Your task to perform on an android device: Go to ESPN.com Image 0: 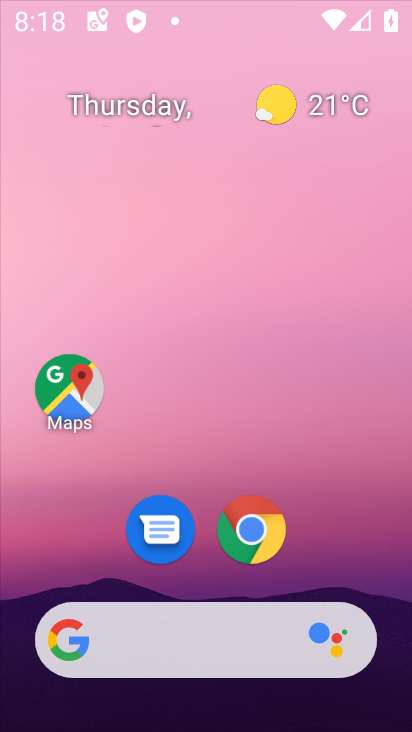
Step 0: drag from (261, 14) to (220, 19)
Your task to perform on an android device: Go to ESPN.com Image 1: 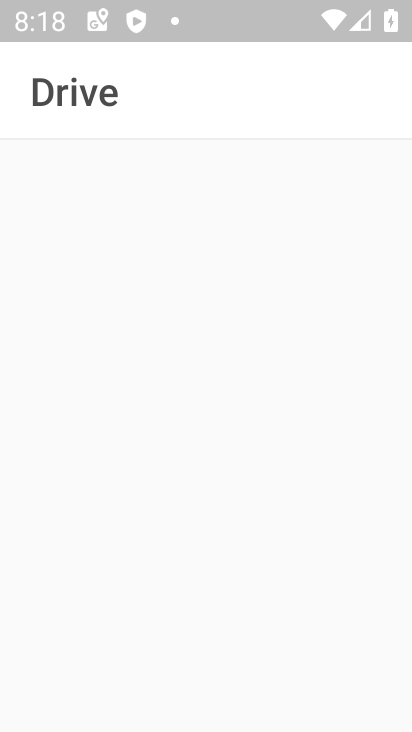
Step 1: press home button
Your task to perform on an android device: Go to ESPN.com Image 2: 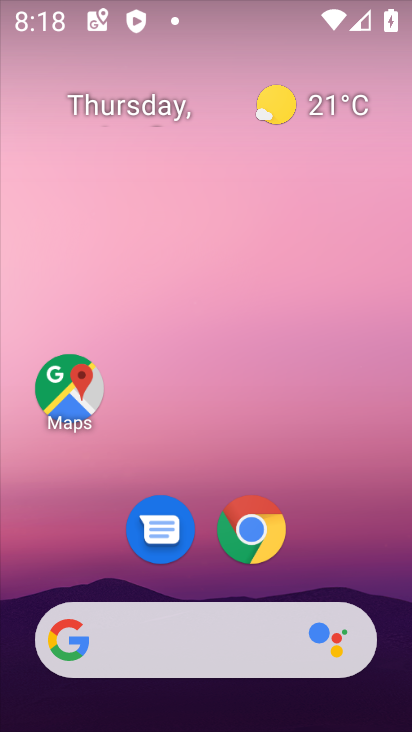
Step 2: click (172, 643)
Your task to perform on an android device: Go to ESPN.com Image 3: 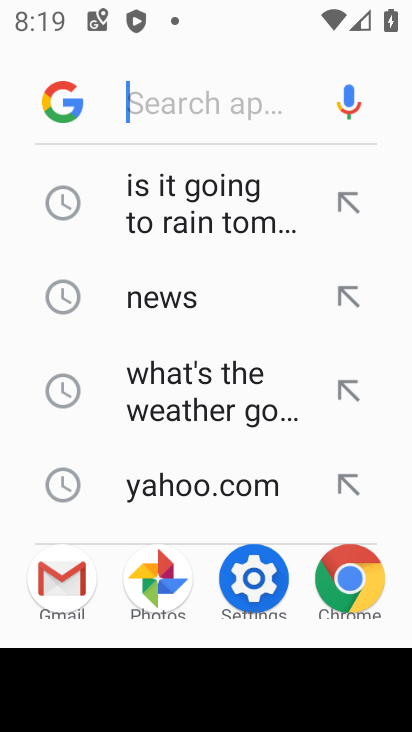
Step 3: type "espn.com"
Your task to perform on an android device: Go to ESPN.com Image 4: 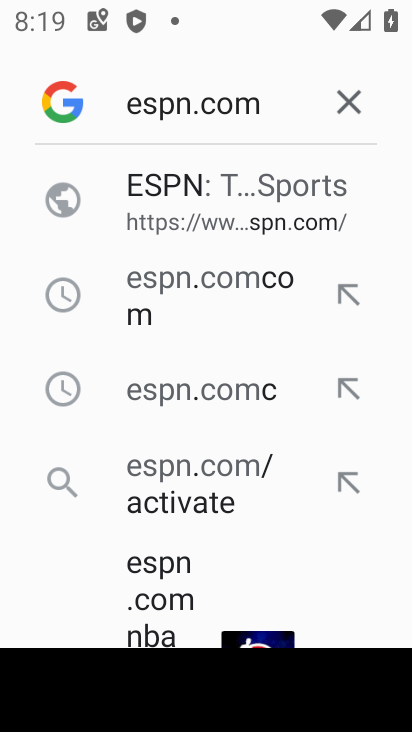
Step 4: click (246, 202)
Your task to perform on an android device: Go to ESPN.com Image 5: 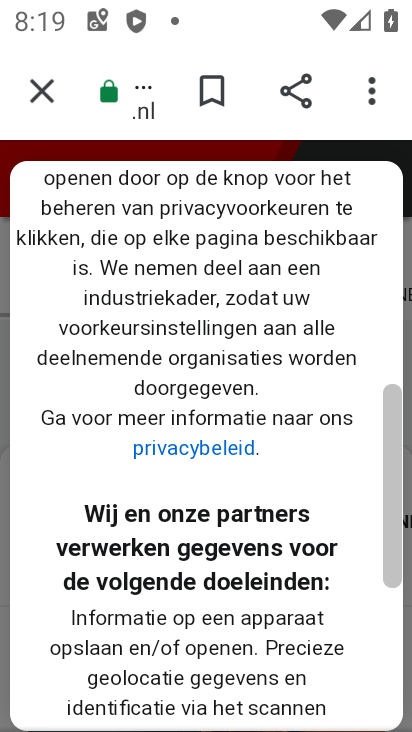
Step 5: task complete